Your task to perform on an android device: check data usage Image 0: 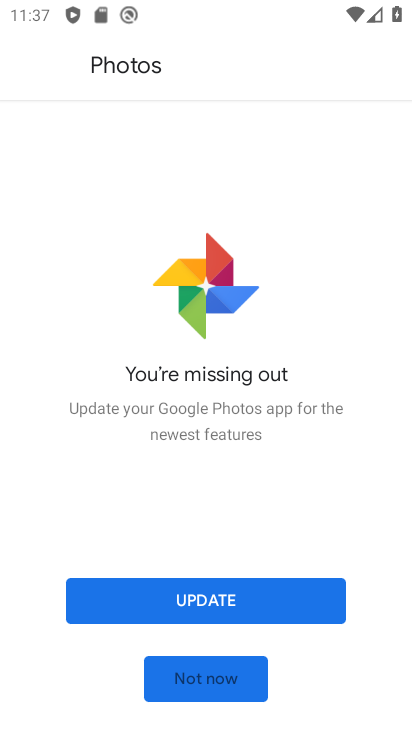
Step 0: press home button
Your task to perform on an android device: check data usage Image 1: 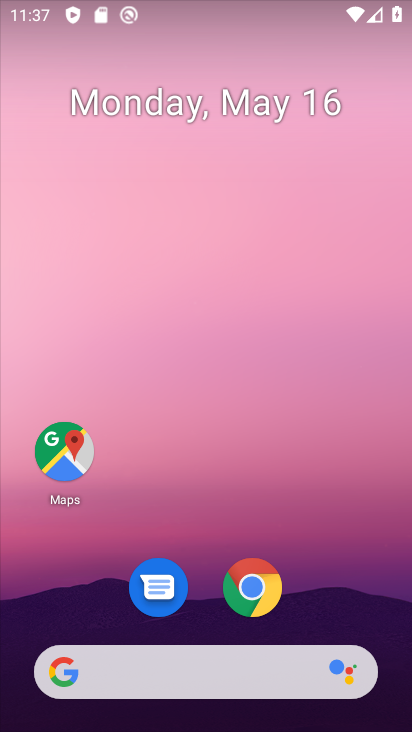
Step 1: drag from (343, 626) to (312, 80)
Your task to perform on an android device: check data usage Image 2: 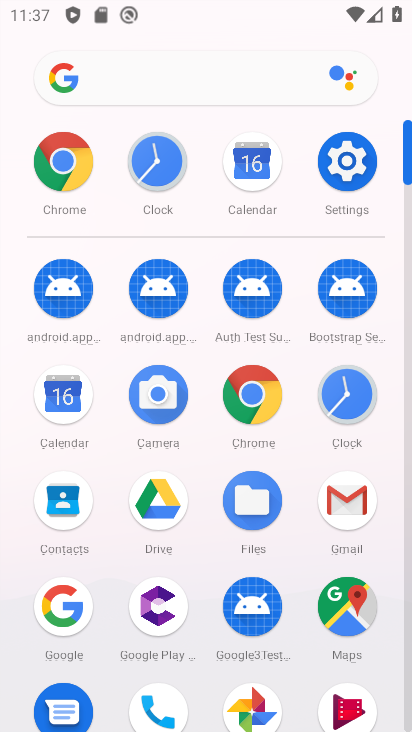
Step 2: click (344, 193)
Your task to perform on an android device: check data usage Image 3: 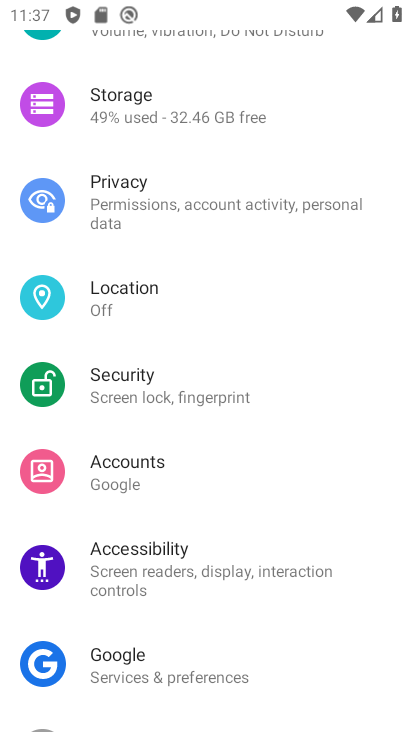
Step 3: drag from (344, 193) to (338, 468)
Your task to perform on an android device: check data usage Image 4: 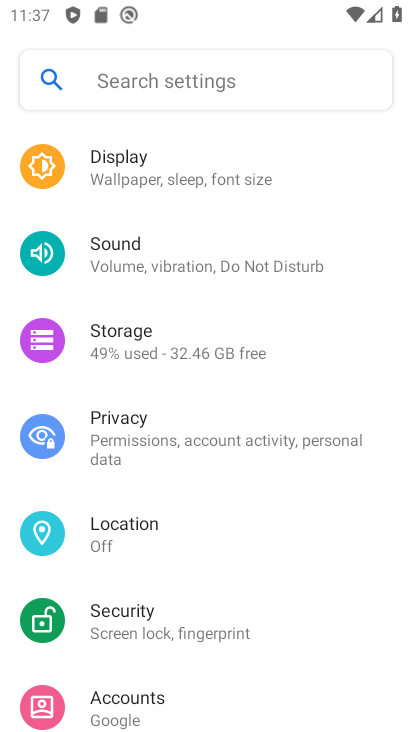
Step 4: drag from (232, 188) to (259, 416)
Your task to perform on an android device: check data usage Image 5: 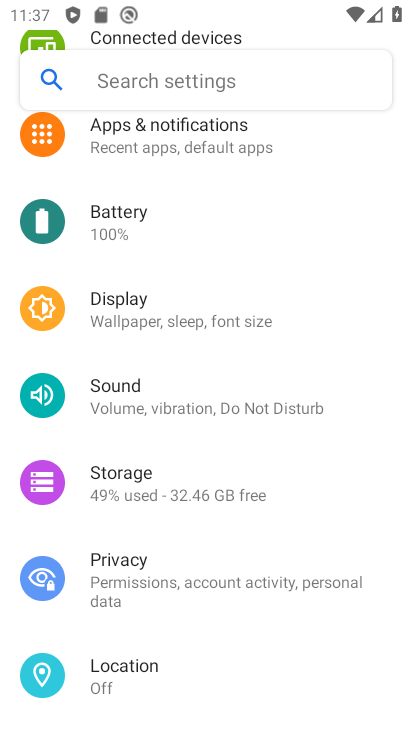
Step 5: drag from (211, 139) to (244, 513)
Your task to perform on an android device: check data usage Image 6: 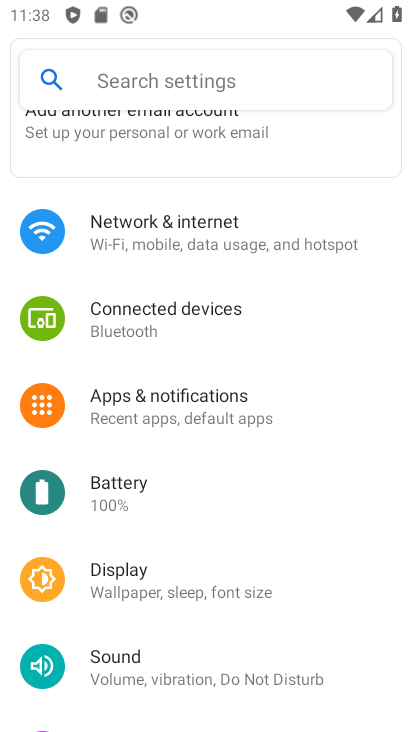
Step 6: click (225, 236)
Your task to perform on an android device: check data usage Image 7: 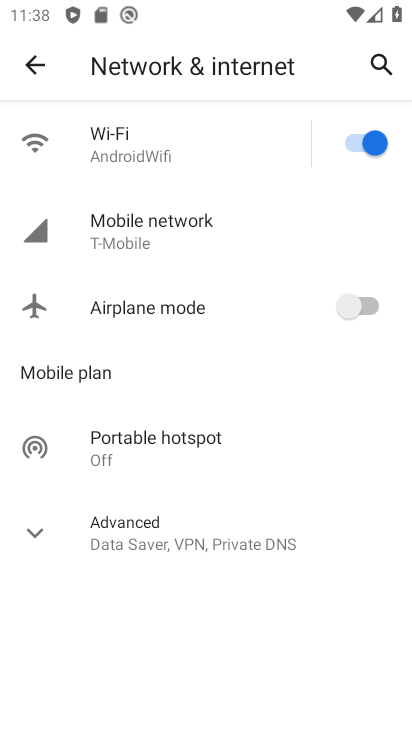
Step 7: click (225, 236)
Your task to perform on an android device: check data usage Image 8: 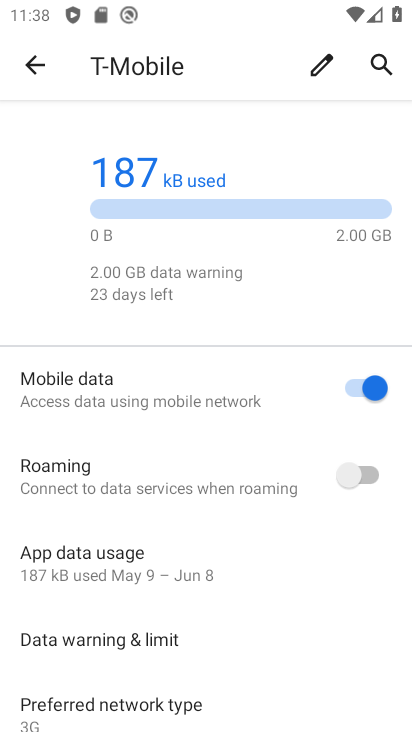
Step 8: click (187, 576)
Your task to perform on an android device: check data usage Image 9: 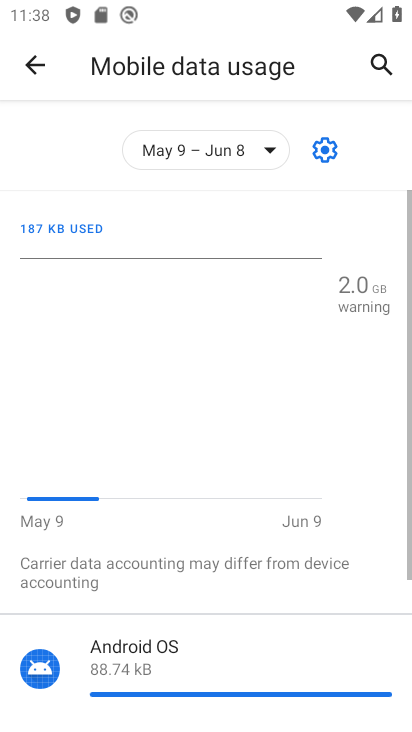
Step 9: task complete